Your task to perform on an android device: Add "lg ultragear" to the cart on costco Image 0: 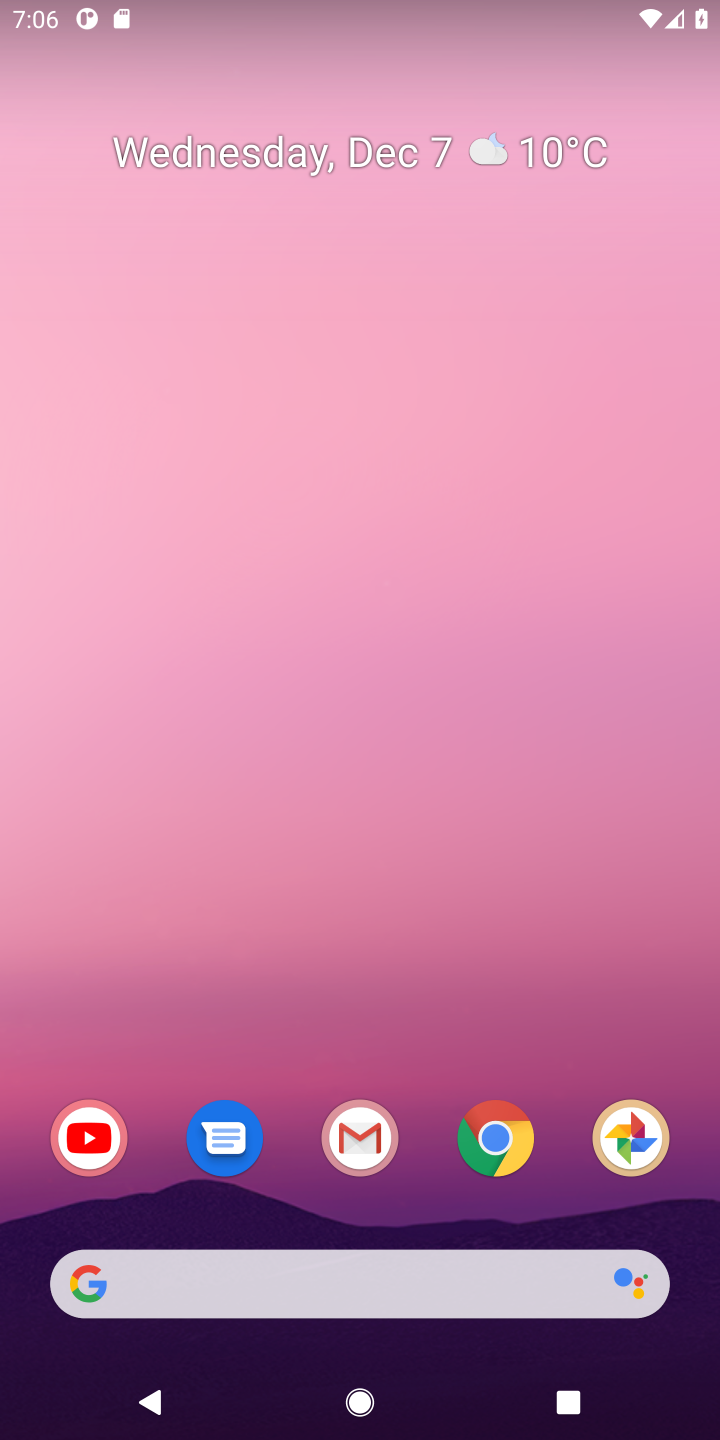
Step 0: press home button
Your task to perform on an android device: Add "lg ultragear" to the cart on costco Image 1: 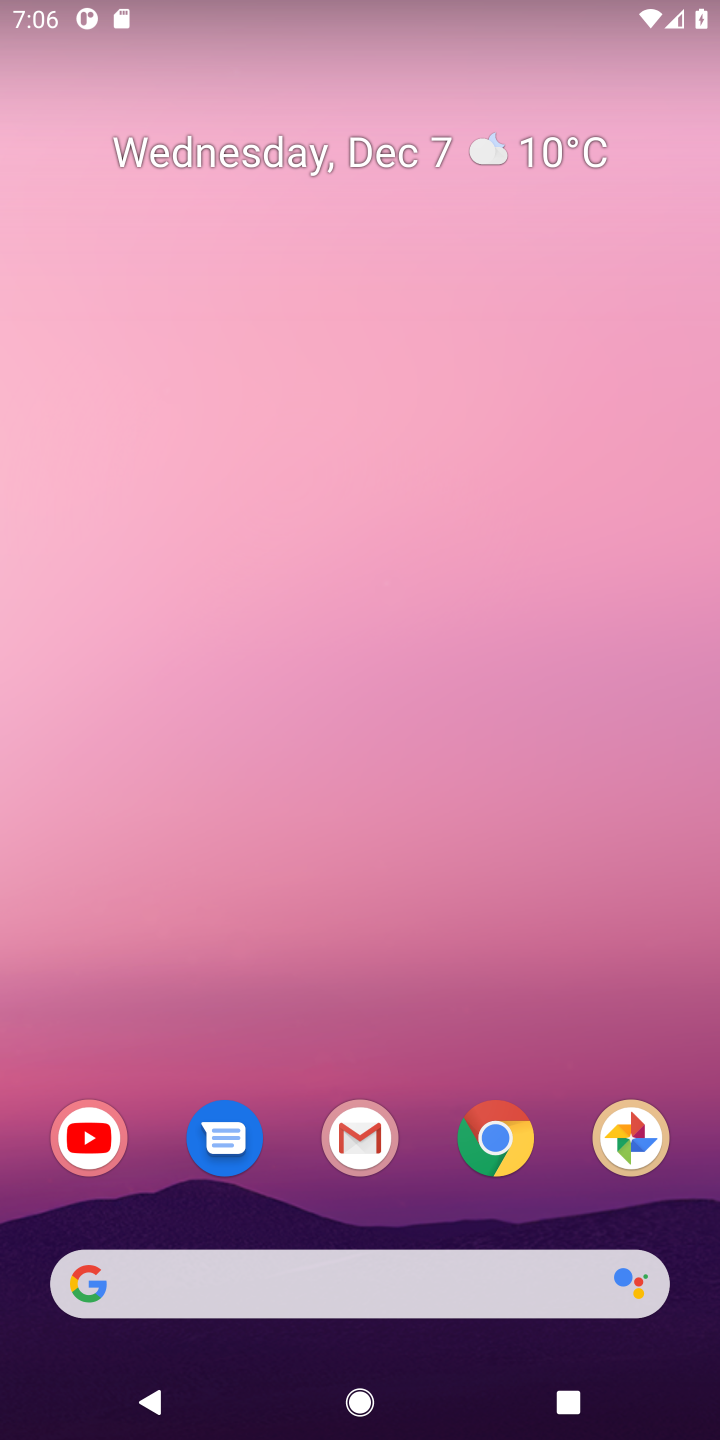
Step 1: click (163, 1273)
Your task to perform on an android device: Add "lg ultragear" to the cart on costco Image 2: 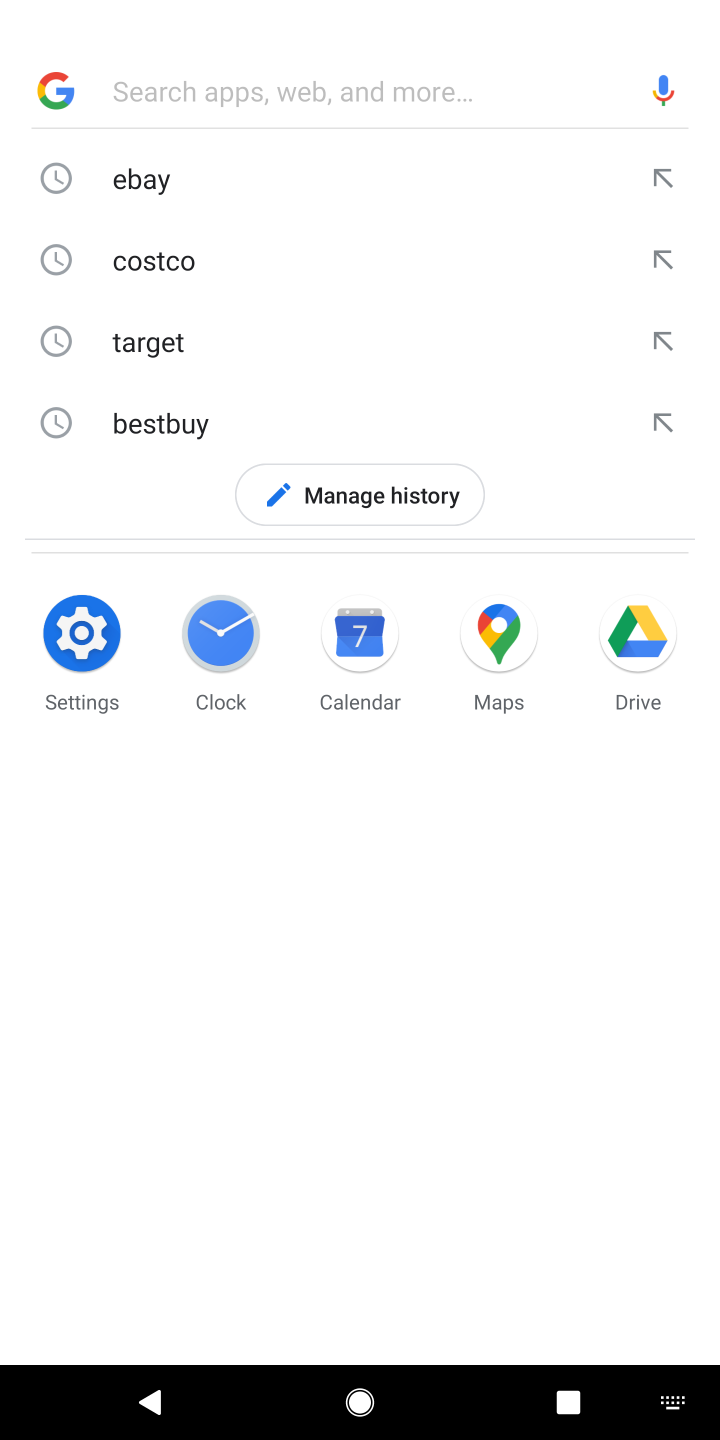
Step 2: type "costco"
Your task to perform on an android device: Add "lg ultragear" to the cart on costco Image 3: 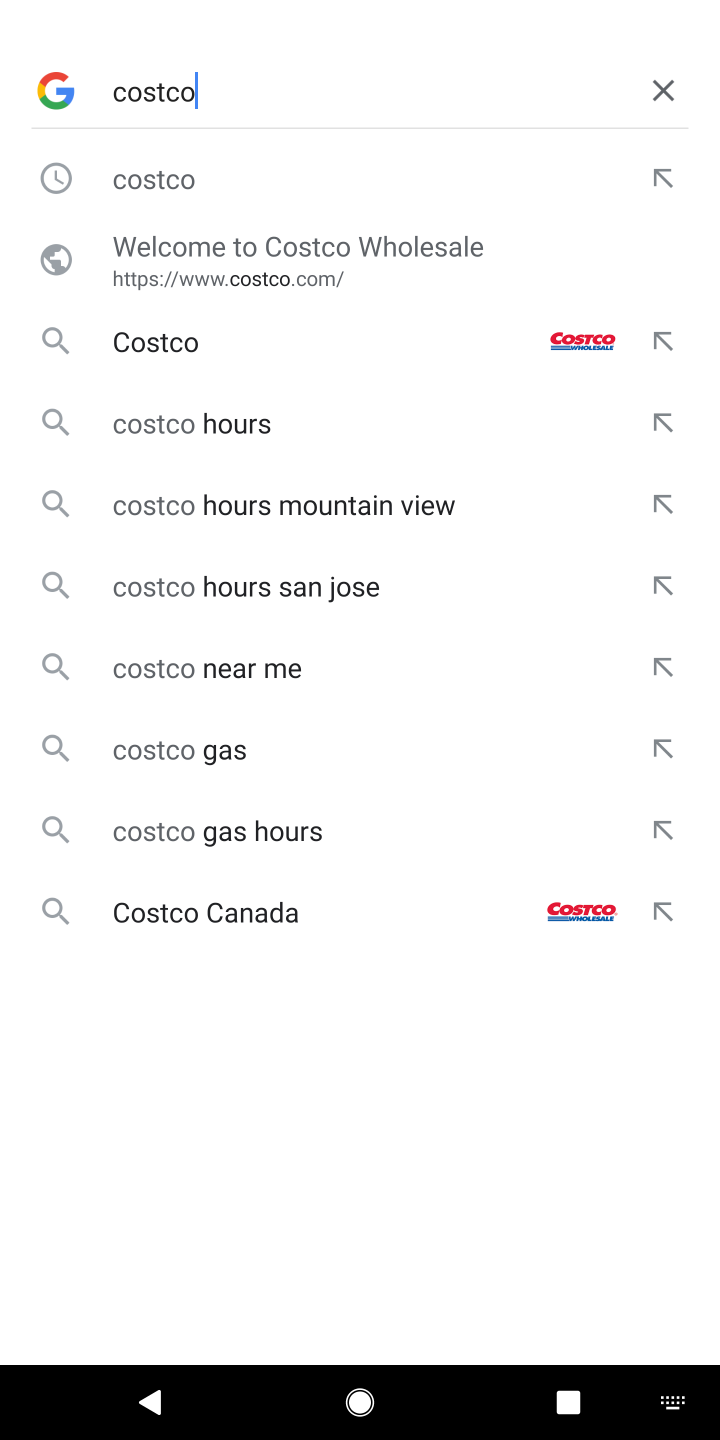
Step 3: press enter
Your task to perform on an android device: Add "lg ultragear" to the cart on costco Image 4: 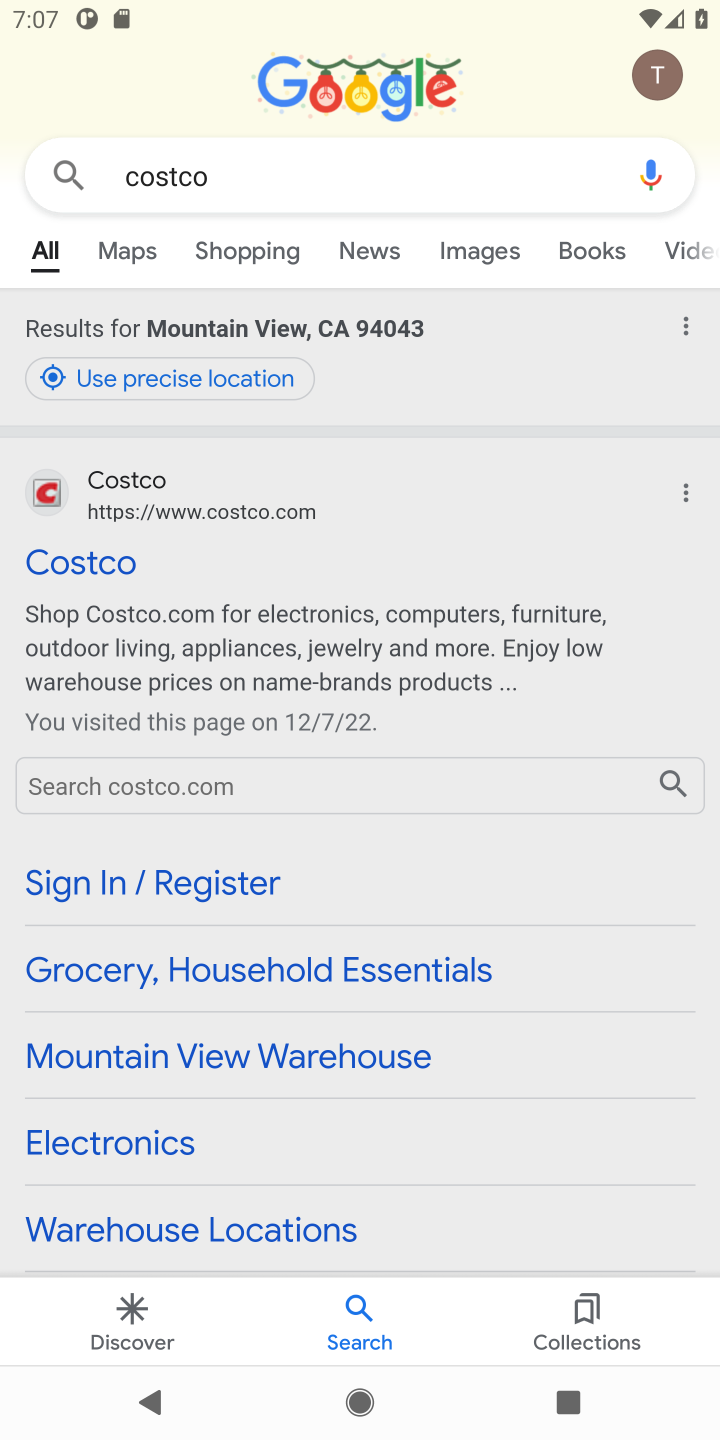
Step 4: click (70, 568)
Your task to perform on an android device: Add "lg ultragear" to the cart on costco Image 5: 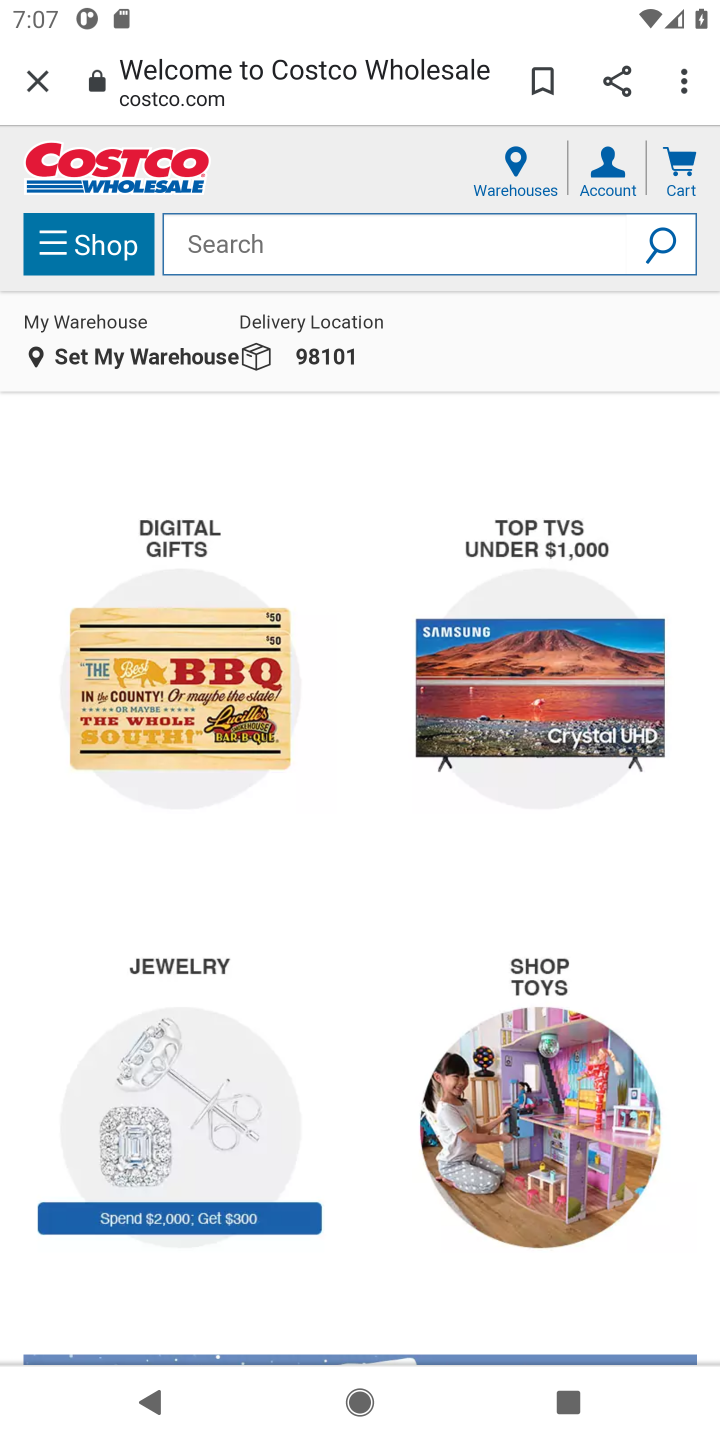
Step 5: click (293, 247)
Your task to perform on an android device: Add "lg ultragear" to the cart on costco Image 6: 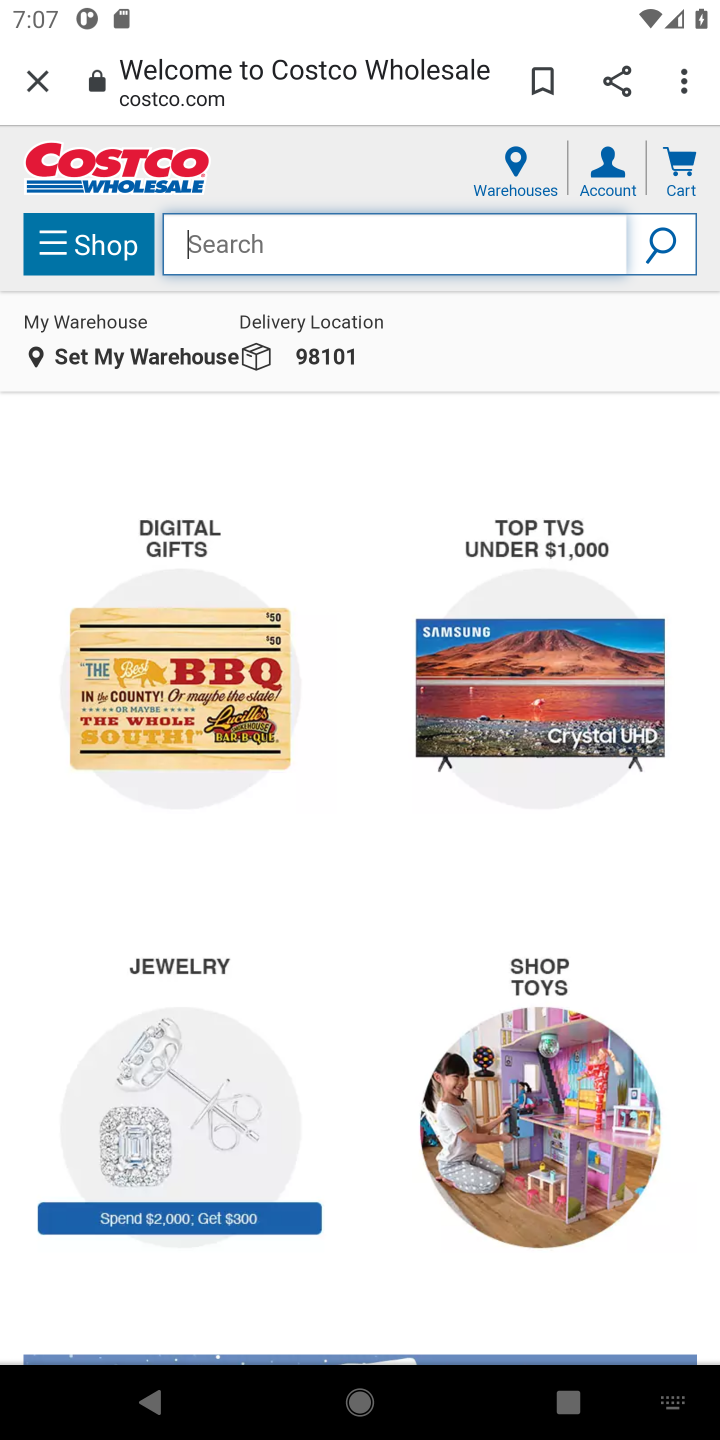
Step 6: press enter
Your task to perform on an android device: Add "lg ultragear" to the cart on costco Image 7: 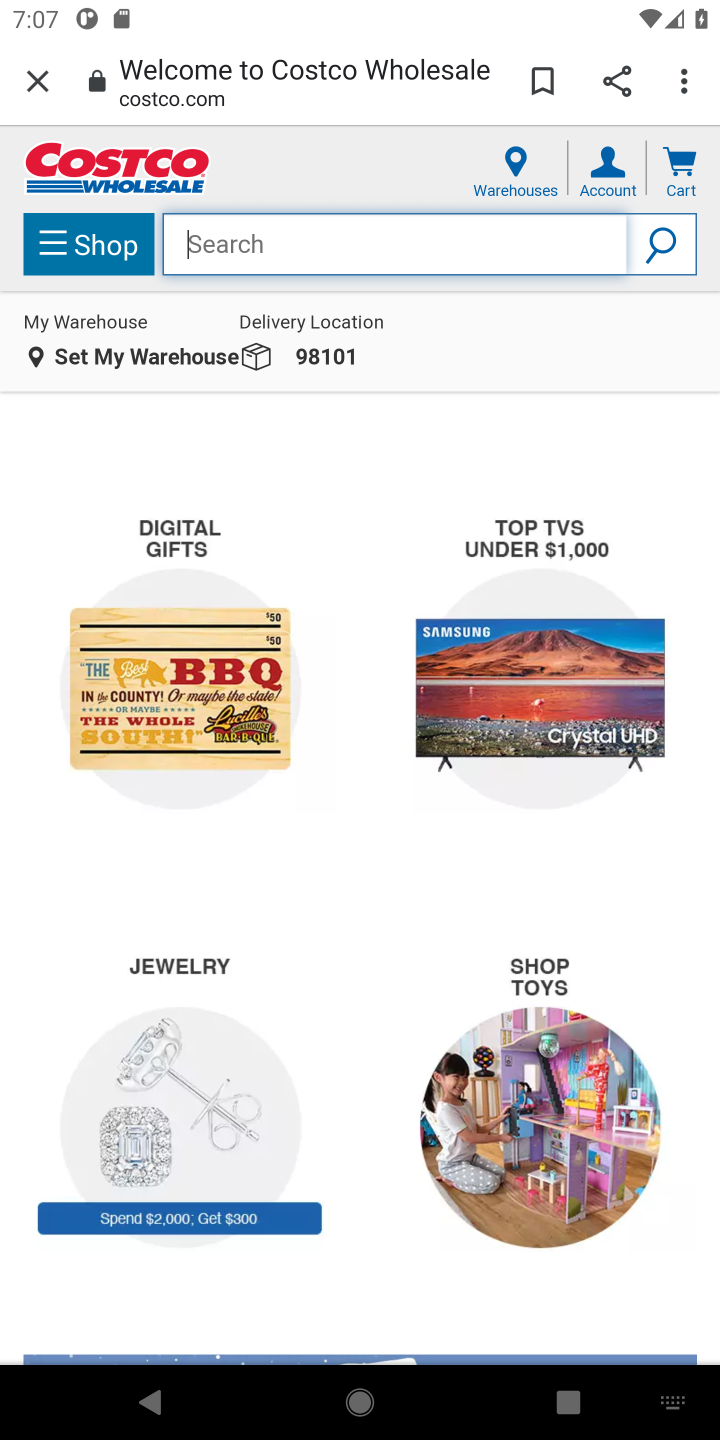
Step 7: type "lg ultragear"
Your task to perform on an android device: Add "lg ultragear" to the cart on costco Image 8: 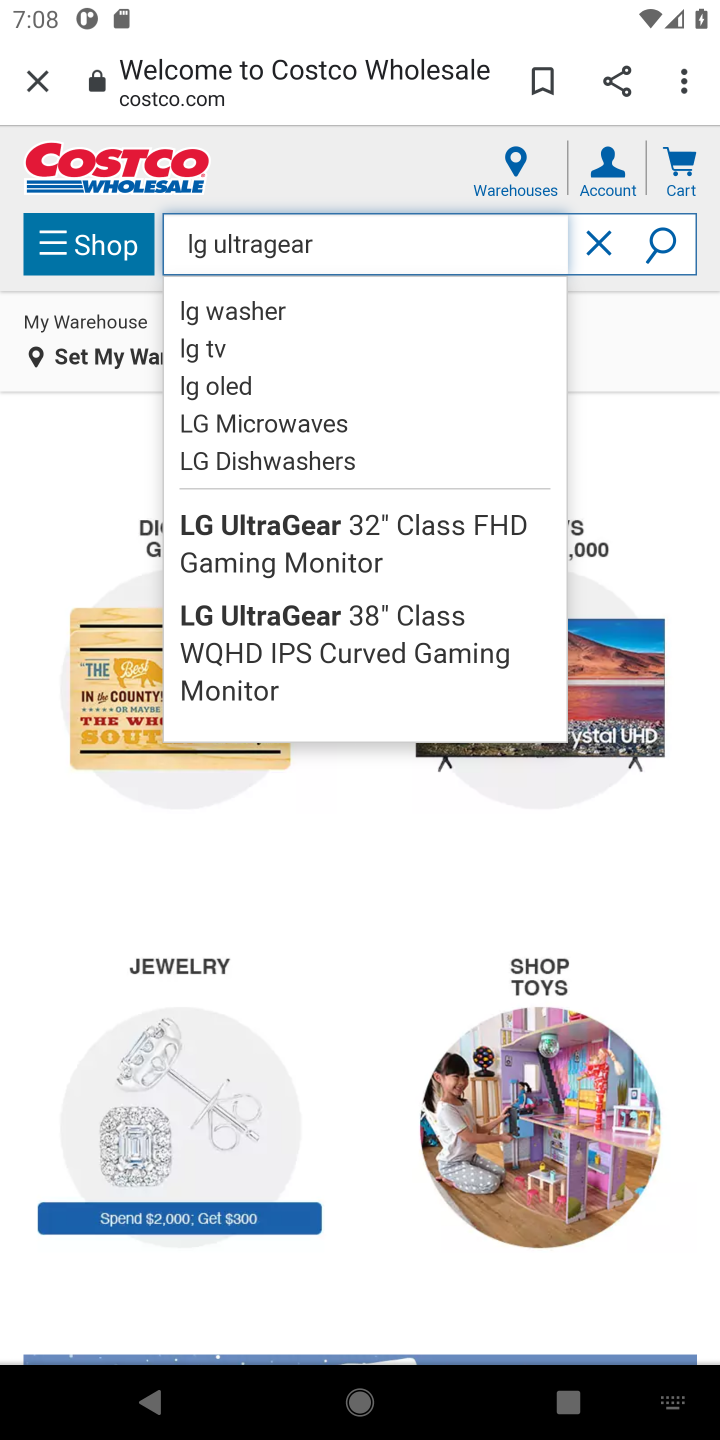
Step 8: click (666, 235)
Your task to perform on an android device: Add "lg ultragear" to the cart on costco Image 9: 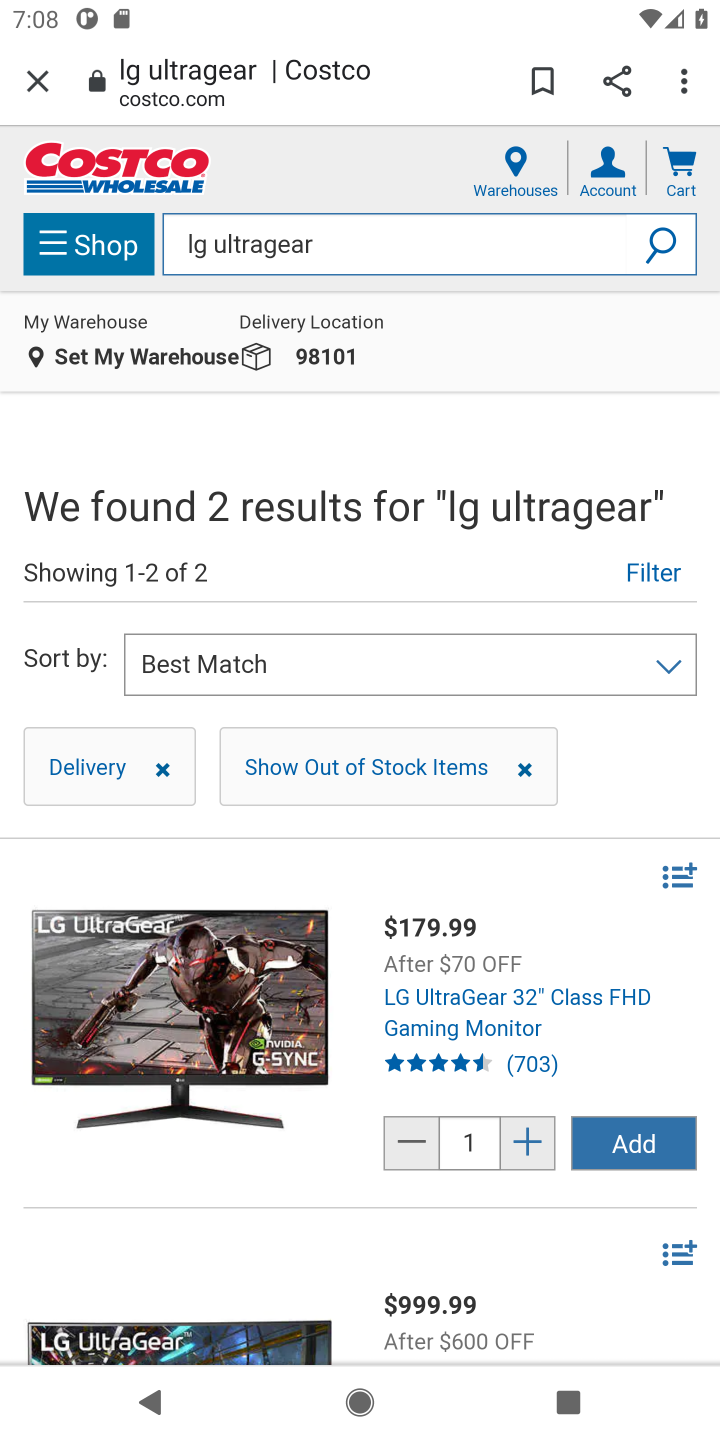
Step 9: click (638, 1150)
Your task to perform on an android device: Add "lg ultragear" to the cart on costco Image 10: 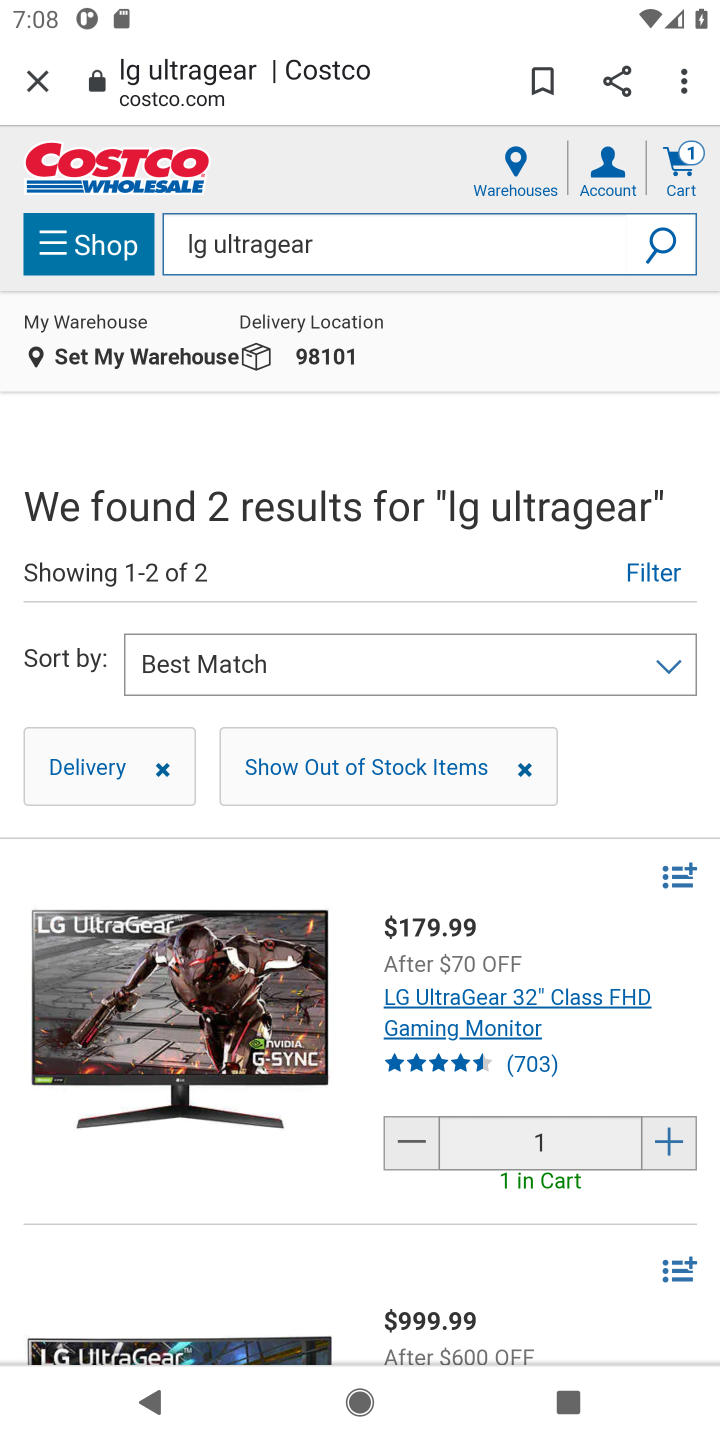
Step 10: task complete